Your task to perform on an android device: turn off picture-in-picture Image 0: 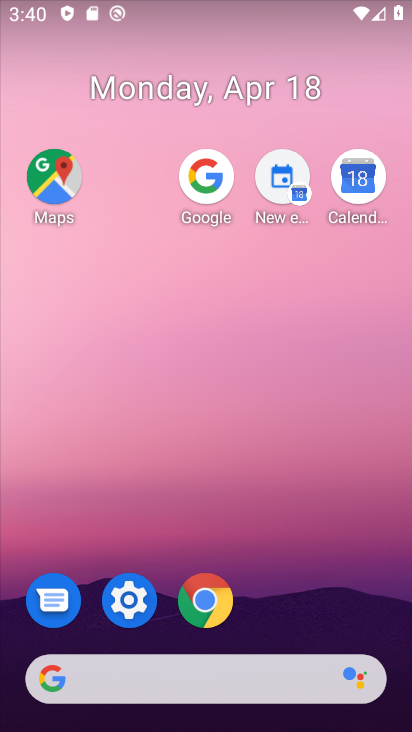
Step 0: drag from (273, 691) to (175, 138)
Your task to perform on an android device: turn off picture-in-picture Image 1: 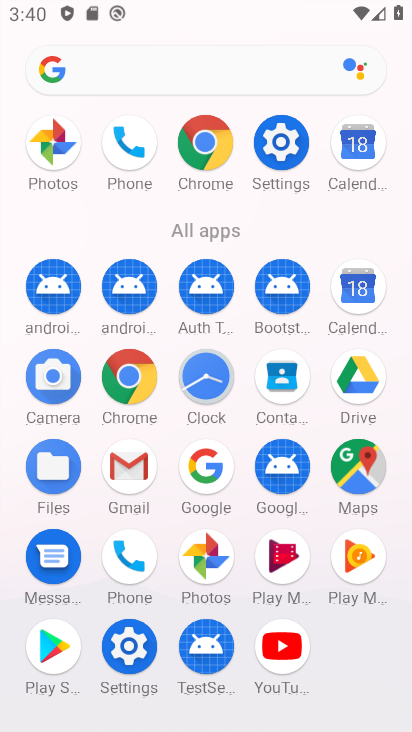
Step 1: click (209, 141)
Your task to perform on an android device: turn off picture-in-picture Image 2: 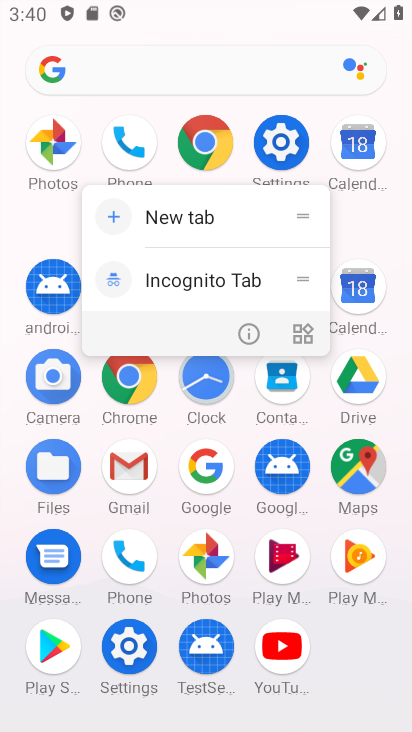
Step 2: click (245, 329)
Your task to perform on an android device: turn off picture-in-picture Image 3: 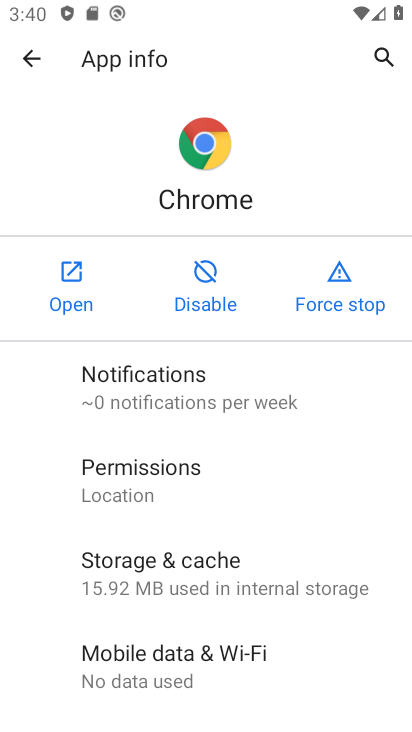
Step 3: drag from (227, 520) to (169, 176)
Your task to perform on an android device: turn off picture-in-picture Image 4: 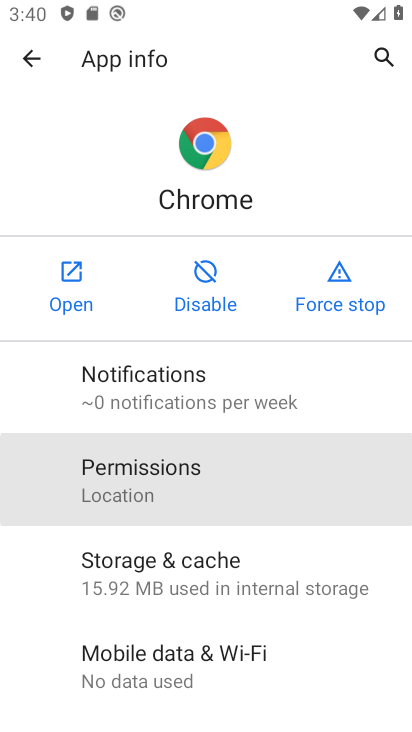
Step 4: drag from (208, 451) to (256, 291)
Your task to perform on an android device: turn off picture-in-picture Image 5: 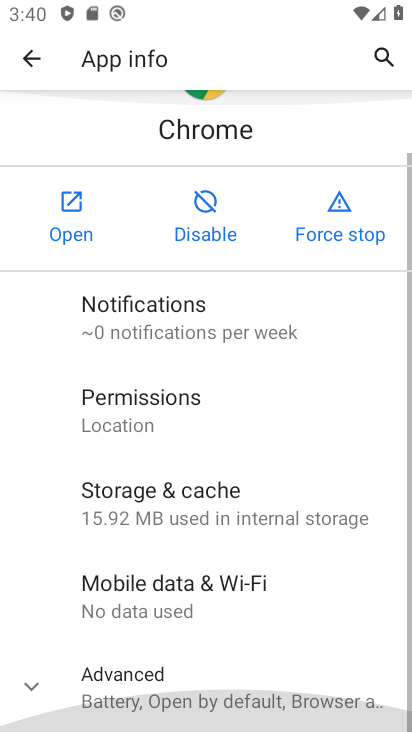
Step 5: drag from (215, 447) to (207, 350)
Your task to perform on an android device: turn off picture-in-picture Image 6: 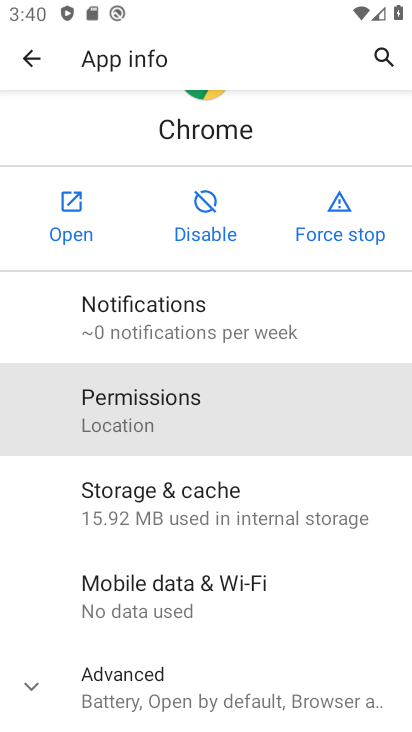
Step 6: drag from (260, 596) to (218, 411)
Your task to perform on an android device: turn off picture-in-picture Image 7: 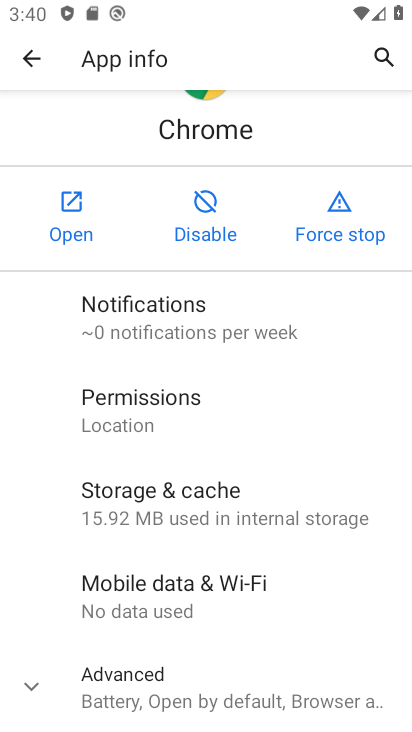
Step 7: click (29, 55)
Your task to perform on an android device: turn off picture-in-picture Image 8: 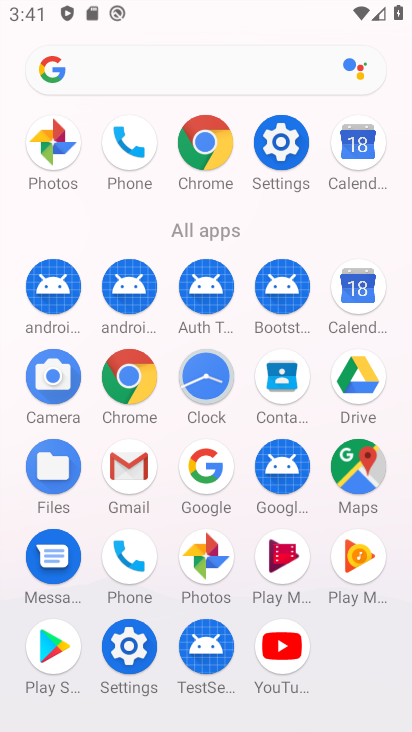
Step 8: click (197, 139)
Your task to perform on an android device: turn off picture-in-picture Image 9: 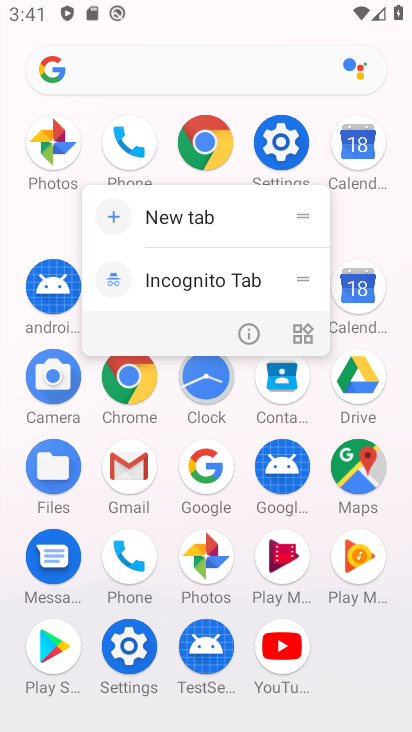
Step 9: click (245, 325)
Your task to perform on an android device: turn off picture-in-picture Image 10: 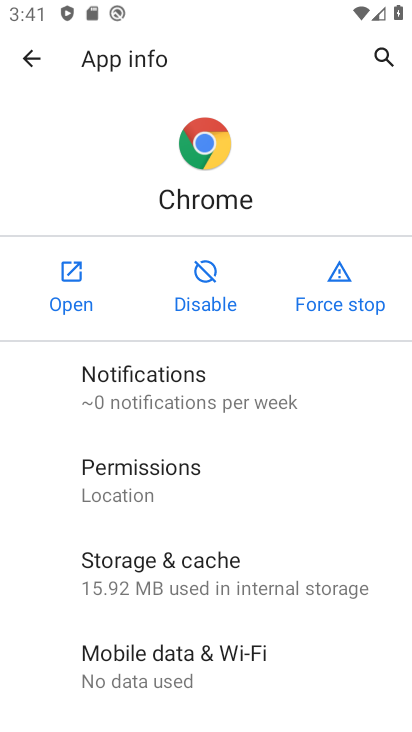
Step 10: drag from (218, 448) to (164, 222)
Your task to perform on an android device: turn off picture-in-picture Image 11: 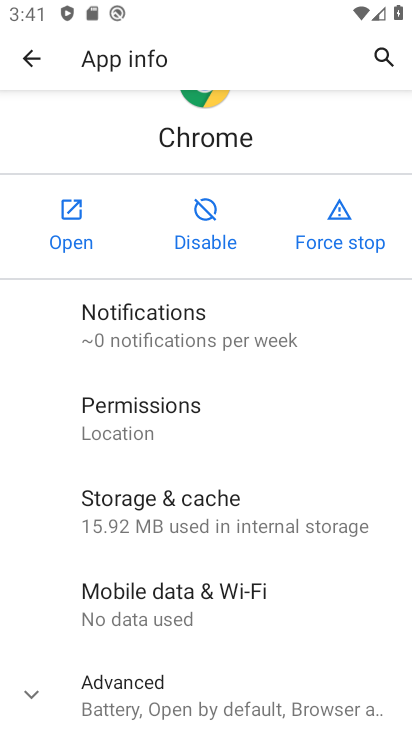
Step 11: drag from (207, 592) to (207, 191)
Your task to perform on an android device: turn off picture-in-picture Image 12: 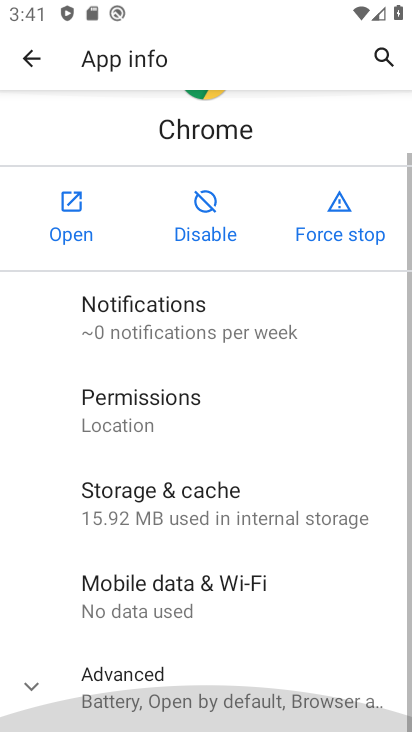
Step 12: drag from (246, 436) to (246, 177)
Your task to perform on an android device: turn off picture-in-picture Image 13: 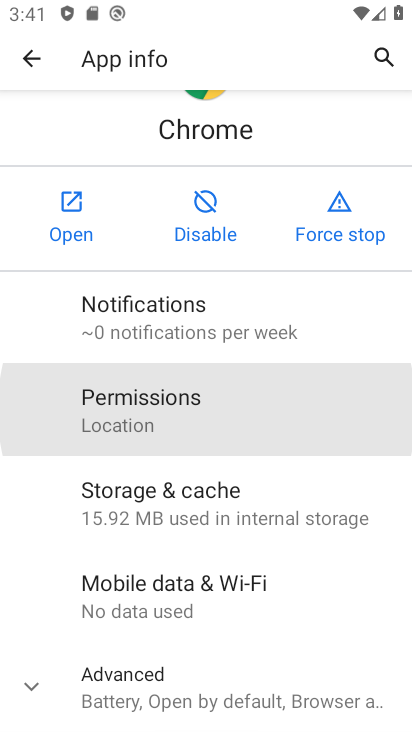
Step 13: drag from (224, 444) to (173, 113)
Your task to perform on an android device: turn off picture-in-picture Image 14: 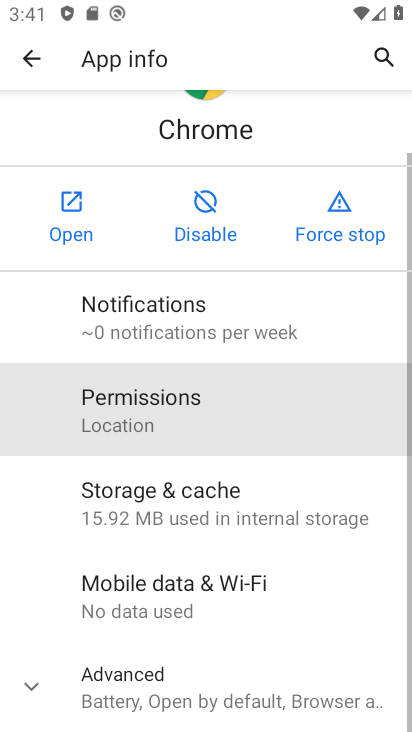
Step 14: drag from (129, 311) to (253, 78)
Your task to perform on an android device: turn off picture-in-picture Image 15: 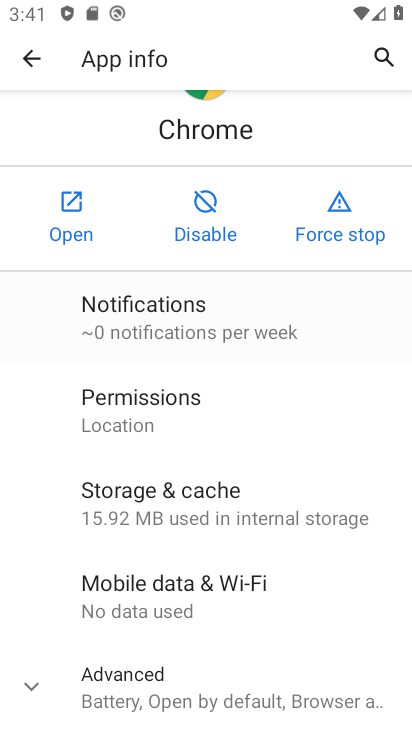
Step 15: drag from (216, 493) to (160, 141)
Your task to perform on an android device: turn off picture-in-picture Image 16: 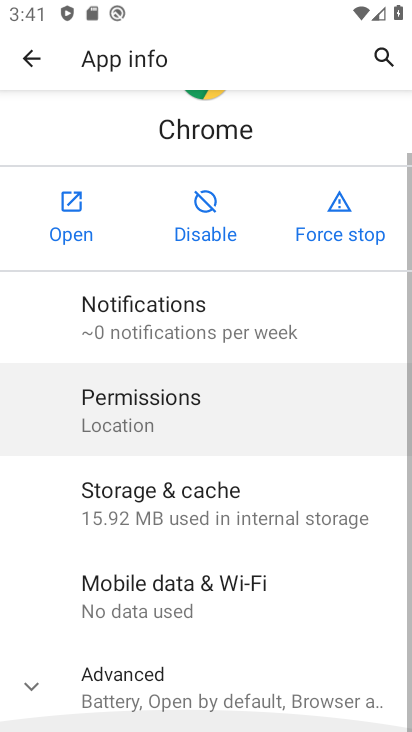
Step 16: drag from (191, 510) to (177, 451)
Your task to perform on an android device: turn off picture-in-picture Image 17: 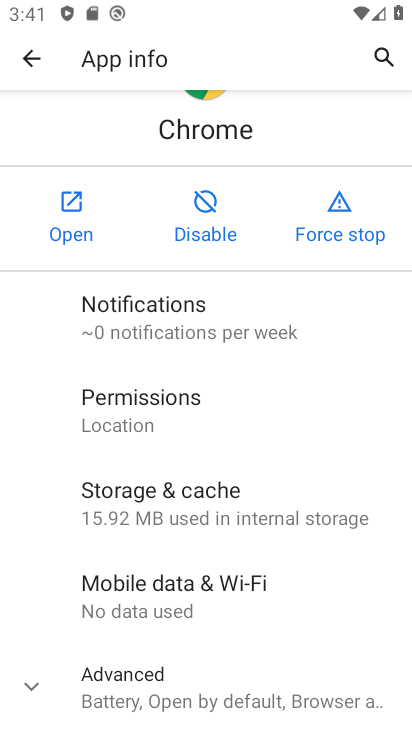
Step 17: drag from (194, 481) to (184, 316)
Your task to perform on an android device: turn off picture-in-picture Image 18: 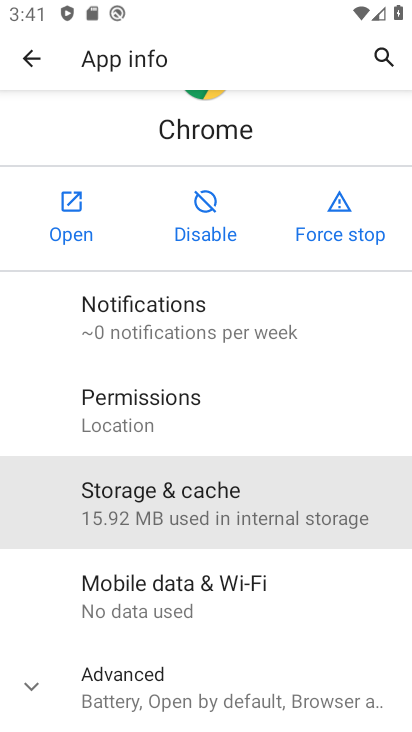
Step 18: drag from (269, 580) to (220, 200)
Your task to perform on an android device: turn off picture-in-picture Image 19: 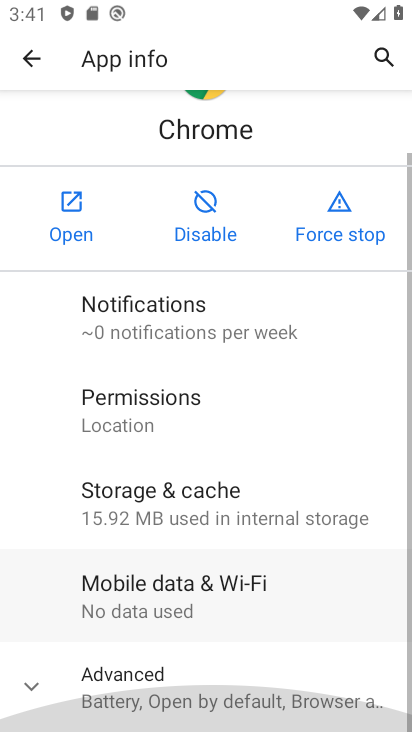
Step 19: drag from (233, 330) to (183, 124)
Your task to perform on an android device: turn off picture-in-picture Image 20: 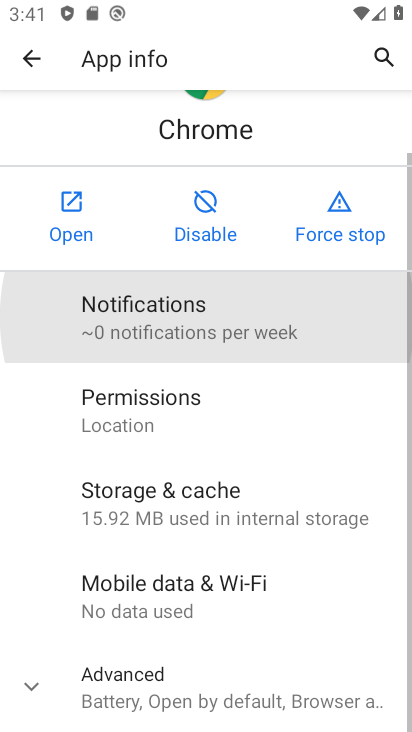
Step 20: drag from (174, 310) to (147, 203)
Your task to perform on an android device: turn off picture-in-picture Image 21: 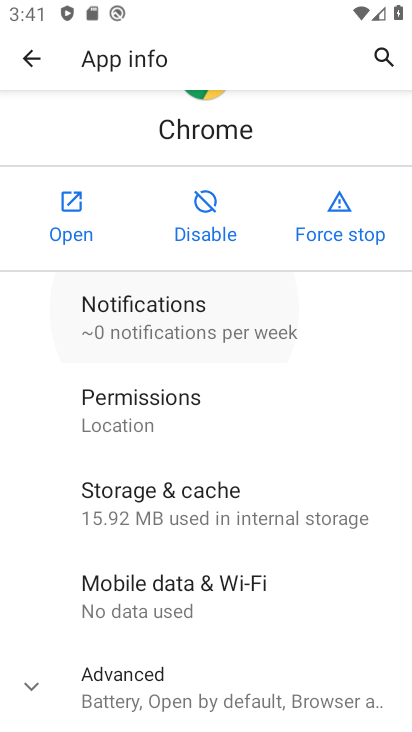
Step 21: drag from (285, 721) to (249, 233)
Your task to perform on an android device: turn off picture-in-picture Image 22: 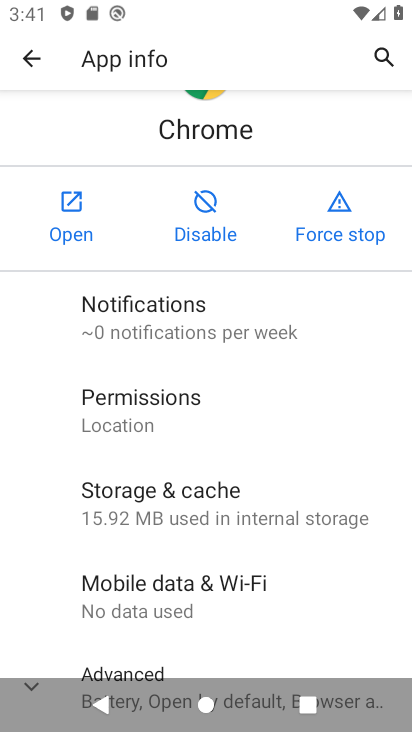
Step 22: drag from (231, 492) to (242, 138)
Your task to perform on an android device: turn off picture-in-picture Image 23: 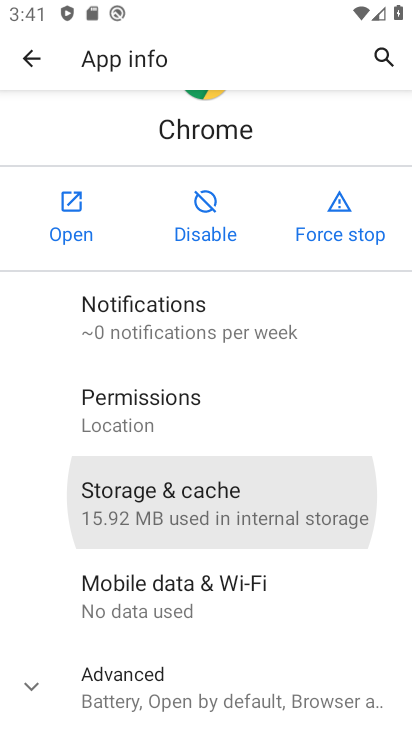
Step 23: drag from (254, 557) to (243, 139)
Your task to perform on an android device: turn off picture-in-picture Image 24: 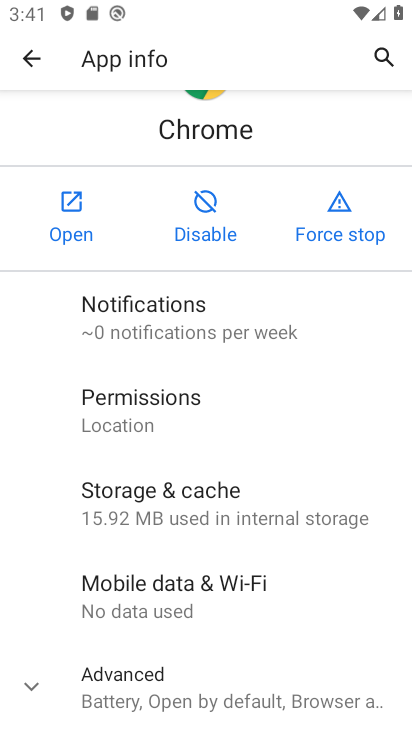
Step 24: click (23, 57)
Your task to perform on an android device: turn off picture-in-picture Image 25: 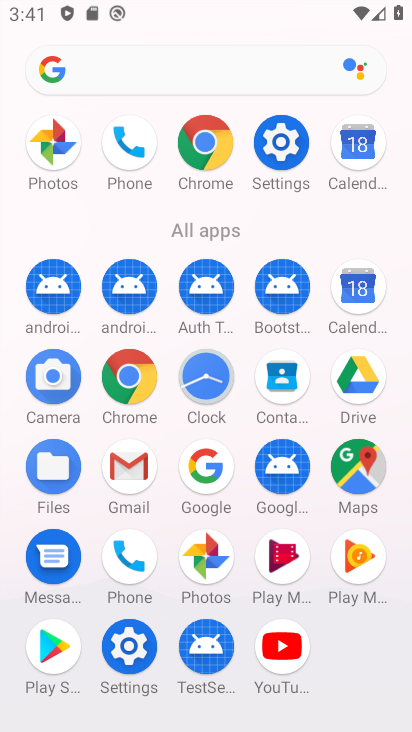
Step 25: drag from (201, 135) to (245, 328)
Your task to perform on an android device: turn off picture-in-picture Image 26: 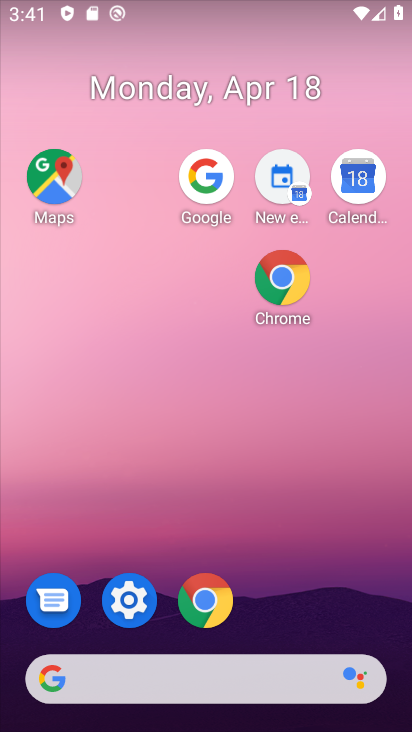
Step 26: drag from (290, 273) to (266, 83)
Your task to perform on an android device: turn off picture-in-picture Image 27: 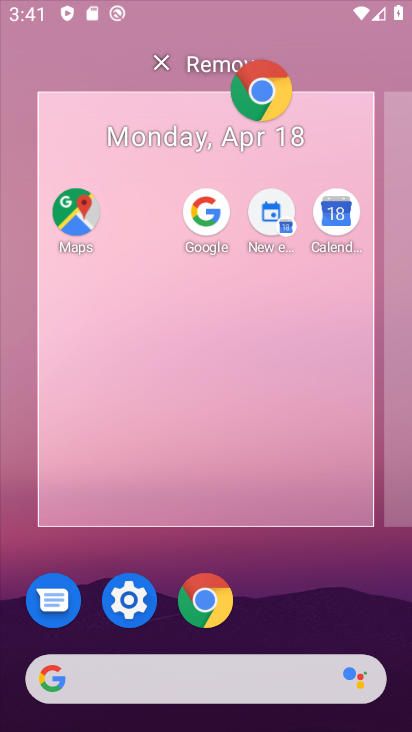
Step 27: click (226, 83)
Your task to perform on an android device: turn off picture-in-picture Image 28: 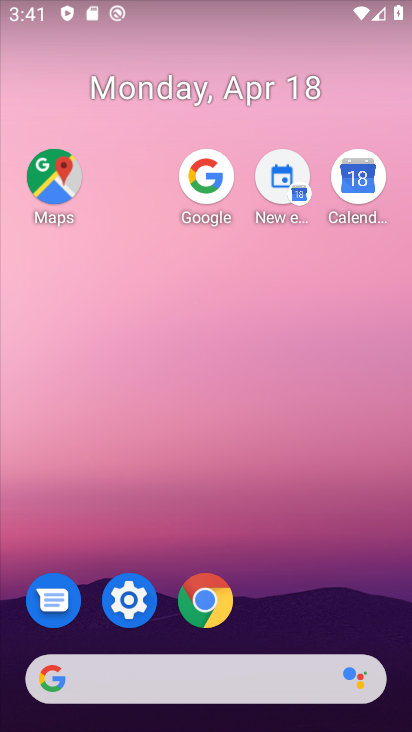
Step 28: click (221, 614)
Your task to perform on an android device: turn off picture-in-picture Image 29: 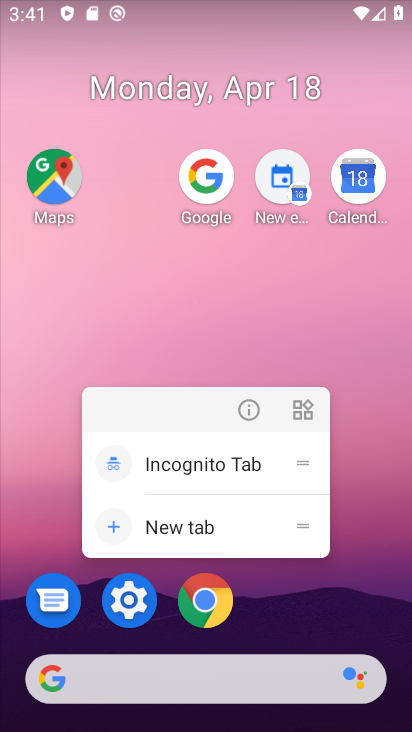
Step 29: click (197, 593)
Your task to perform on an android device: turn off picture-in-picture Image 30: 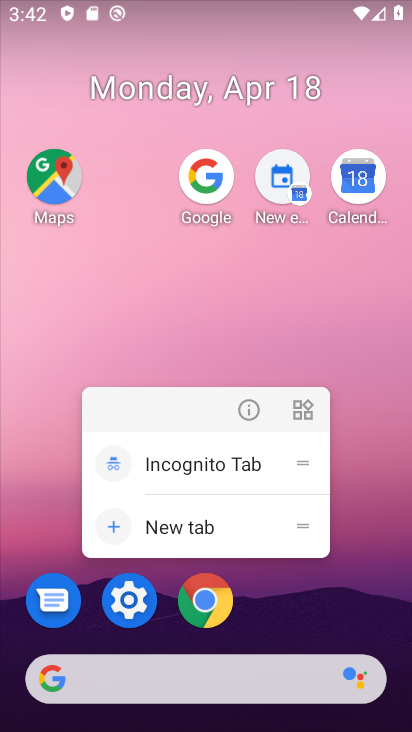
Step 30: click (248, 408)
Your task to perform on an android device: turn off picture-in-picture Image 31: 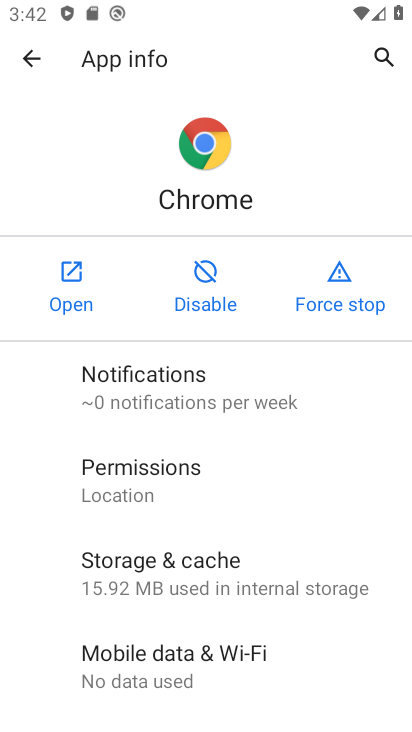
Step 31: click (29, 58)
Your task to perform on an android device: turn off picture-in-picture Image 32: 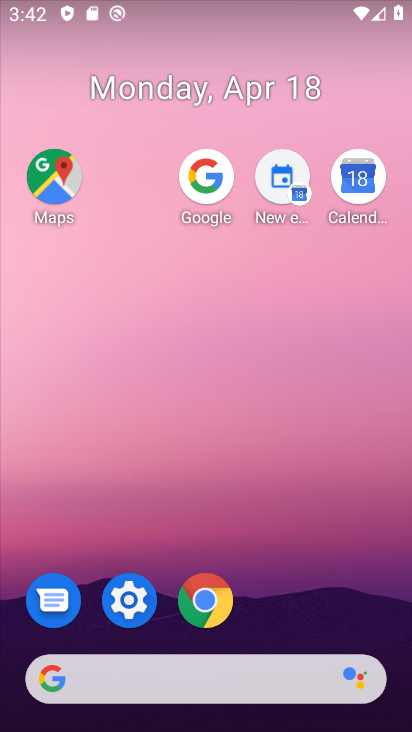
Step 32: click (206, 602)
Your task to perform on an android device: turn off picture-in-picture Image 33: 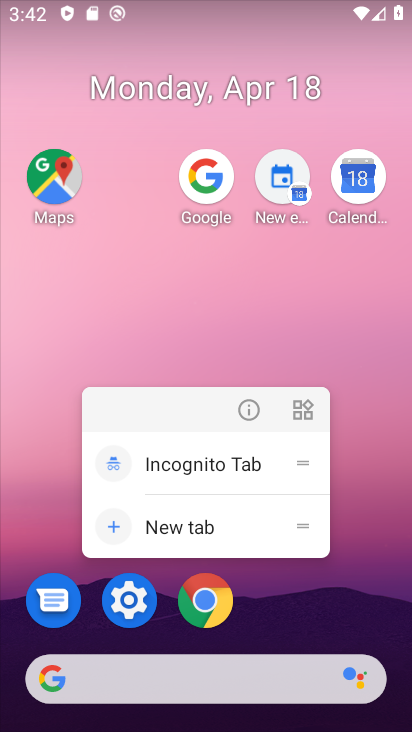
Step 33: click (252, 407)
Your task to perform on an android device: turn off picture-in-picture Image 34: 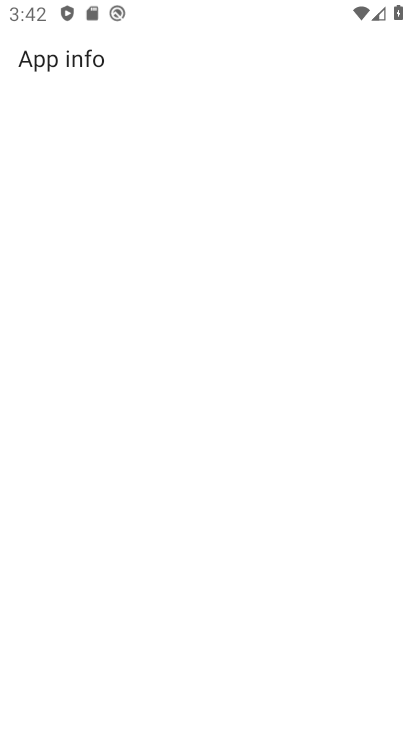
Step 34: click (248, 408)
Your task to perform on an android device: turn off picture-in-picture Image 35: 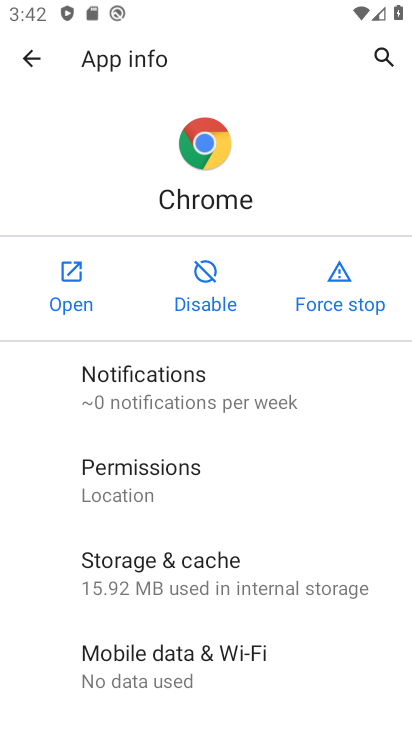
Step 35: drag from (293, 595) to (319, 323)
Your task to perform on an android device: turn off picture-in-picture Image 36: 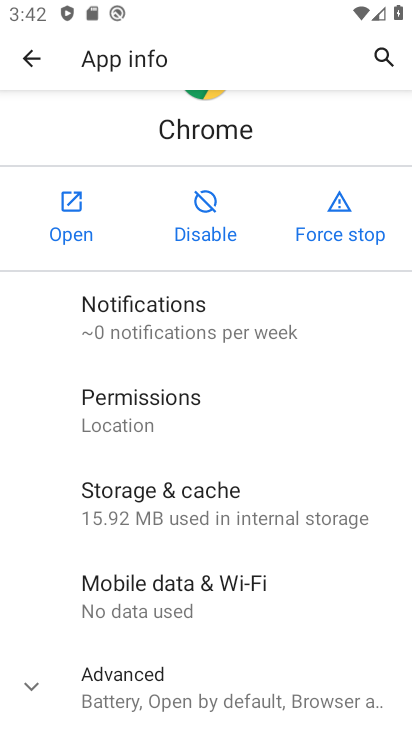
Step 36: click (23, 59)
Your task to perform on an android device: turn off picture-in-picture Image 37: 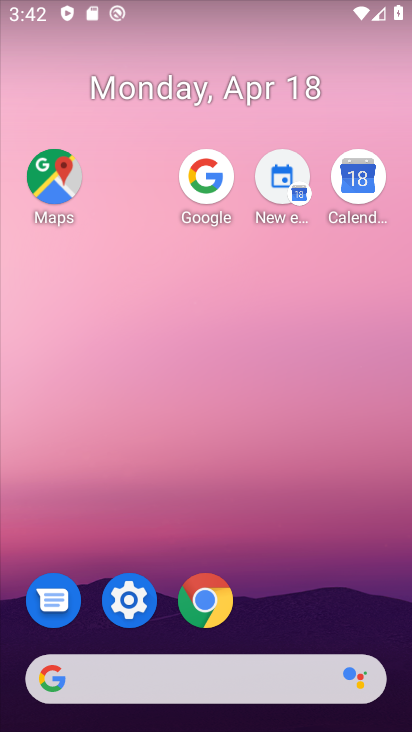
Step 37: click (198, 591)
Your task to perform on an android device: turn off picture-in-picture Image 38: 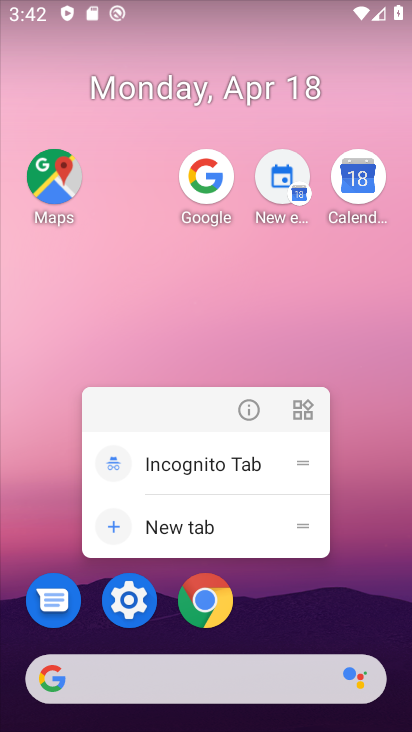
Step 38: click (245, 422)
Your task to perform on an android device: turn off picture-in-picture Image 39: 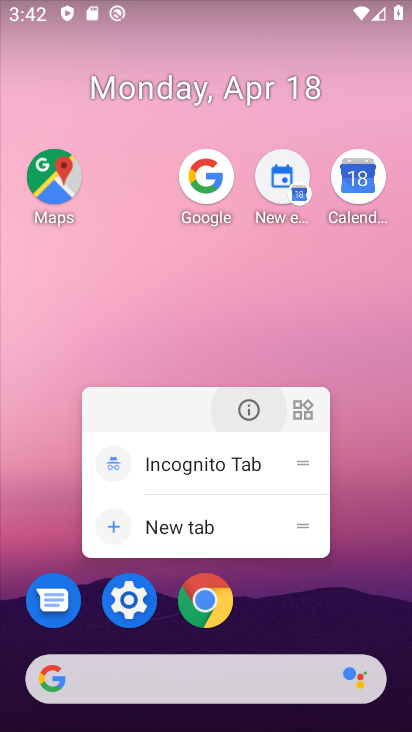
Step 39: click (242, 396)
Your task to perform on an android device: turn off picture-in-picture Image 40: 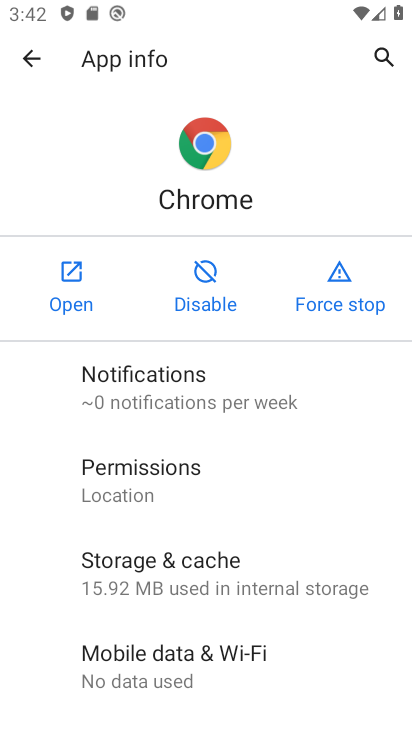
Step 40: drag from (203, 638) to (201, 295)
Your task to perform on an android device: turn off picture-in-picture Image 41: 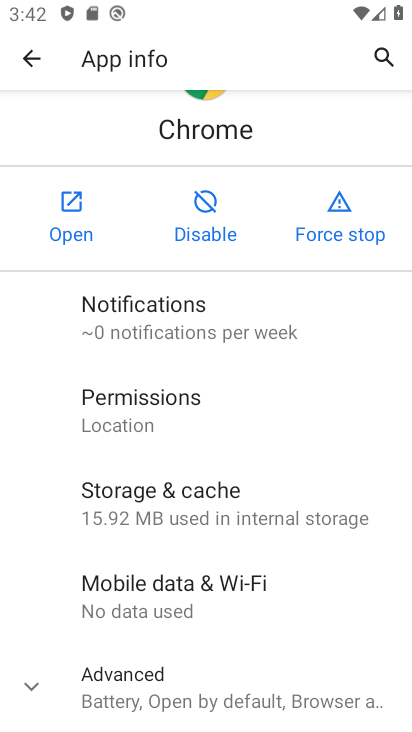
Step 41: click (136, 673)
Your task to perform on an android device: turn off picture-in-picture Image 42: 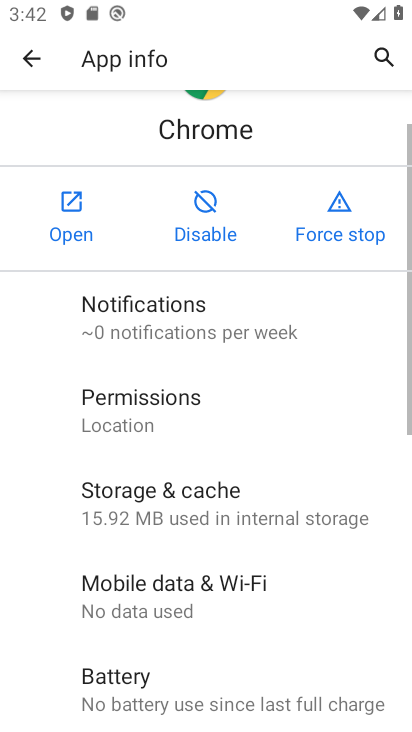
Step 42: drag from (232, 547) to (164, 292)
Your task to perform on an android device: turn off picture-in-picture Image 43: 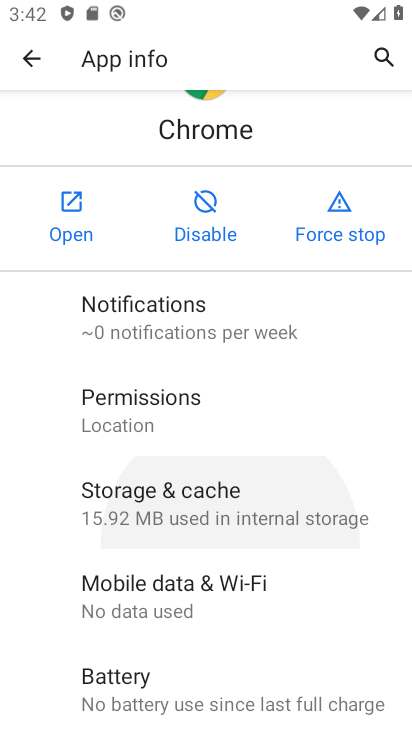
Step 43: drag from (229, 537) to (258, 221)
Your task to perform on an android device: turn off picture-in-picture Image 44: 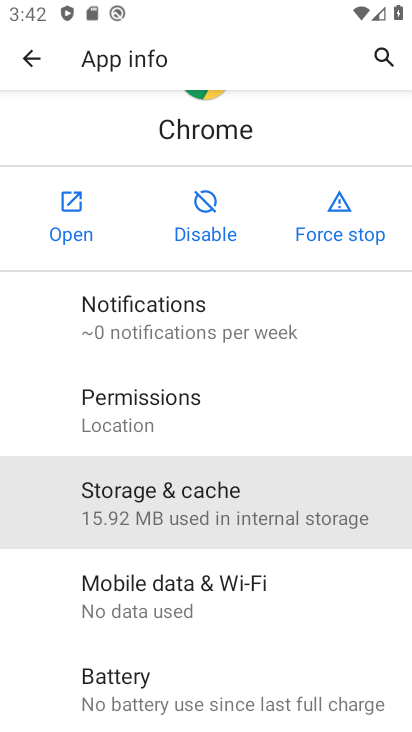
Step 44: drag from (206, 557) to (250, 275)
Your task to perform on an android device: turn off picture-in-picture Image 45: 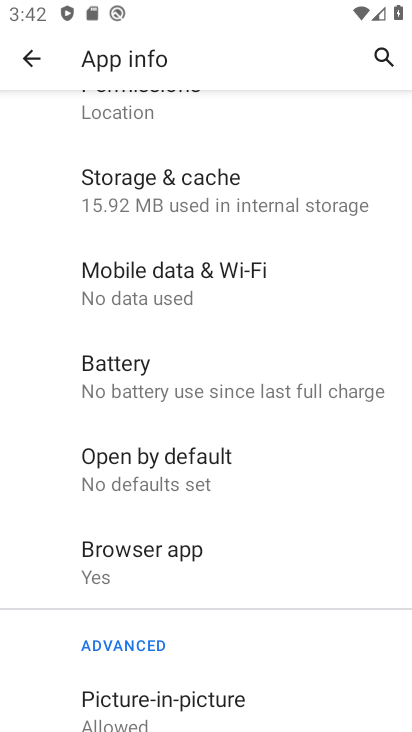
Step 45: drag from (205, 484) to (191, 176)
Your task to perform on an android device: turn off picture-in-picture Image 46: 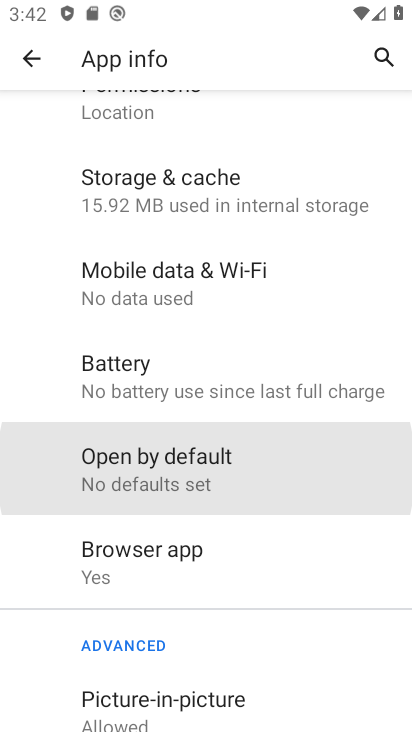
Step 46: drag from (206, 379) to (156, 37)
Your task to perform on an android device: turn off picture-in-picture Image 47: 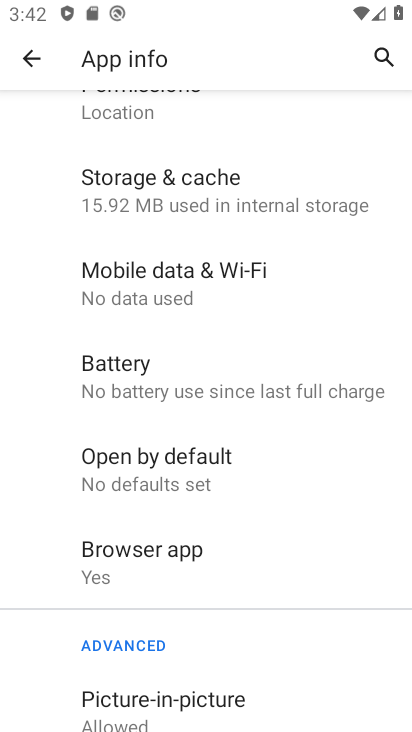
Step 47: click (125, 693)
Your task to perform on an android device: turn off picture-in-picture Image 48: 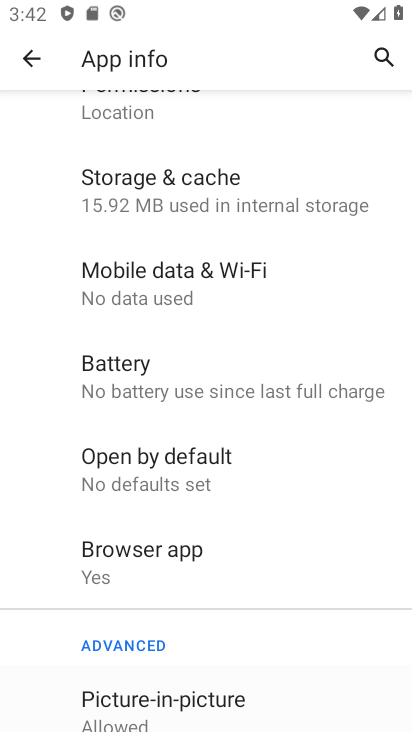
Step 48: click (125, 705)
Your task to perform on an android device: turn off picture-in-picture Image 49: 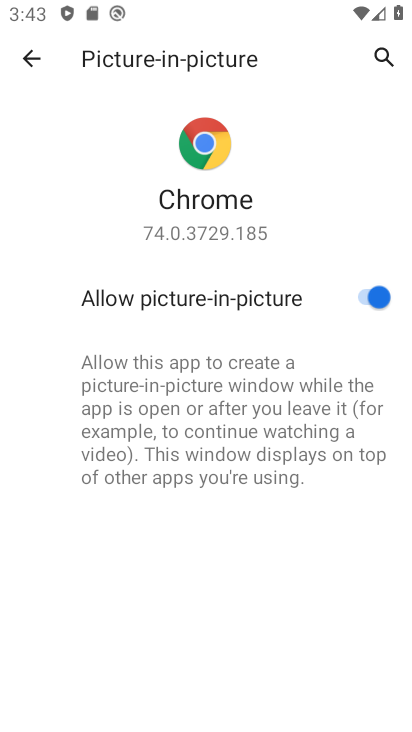
Step 49: click (374, 286)
Your task to perform on an android device: turn off picture-in-picture Image 50: 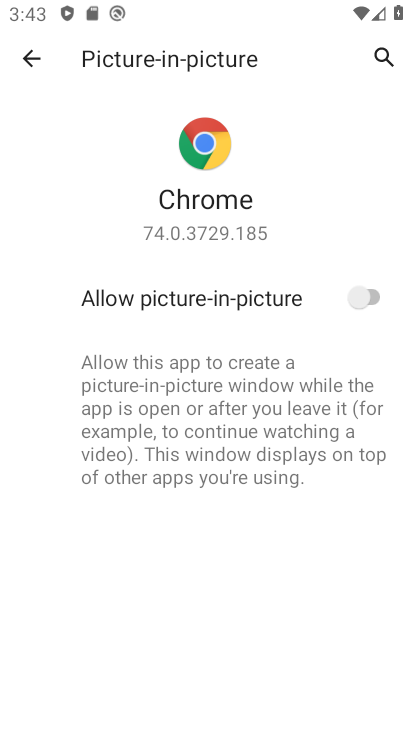
Step 50: task complete